Your task to perform on an android device: Search for pizza restaurants on Maps Image 0: 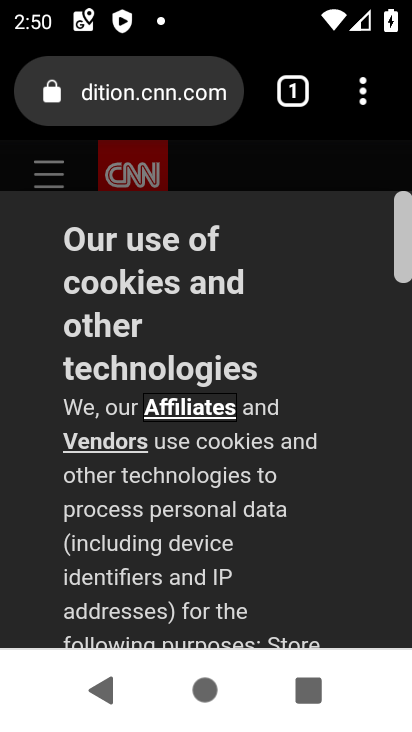
Step 0: press home button
Your task to perform on an android device: Search for pizza restaurants on Maps Image 1: 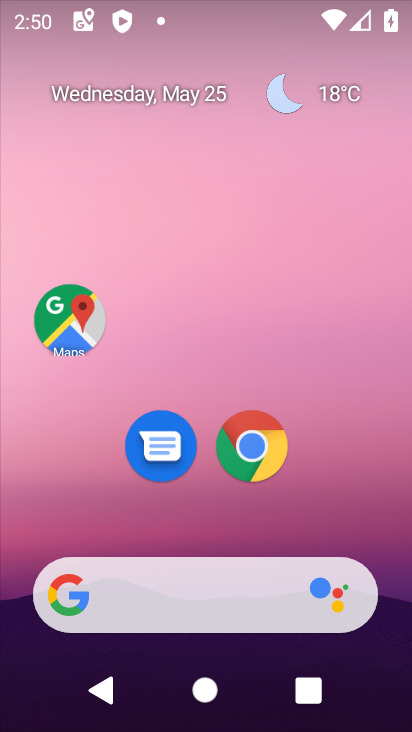
Step 1: drag from (229, 591) to (248, 224)
Your task to perform on an android device: Search for pizza restaurants on Maps Image 2: 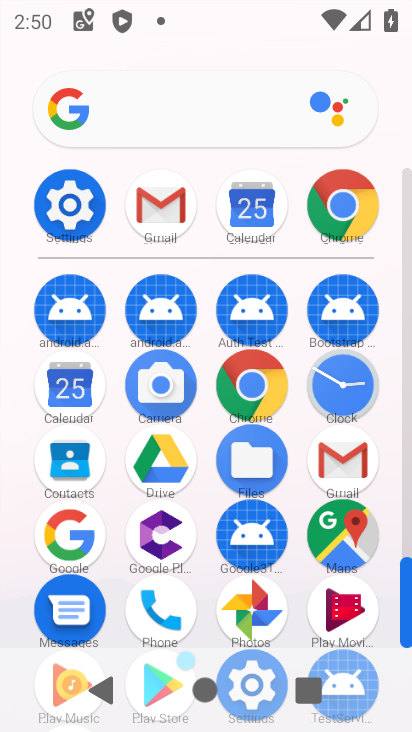
Step 2: click (337, 535)
Your task to perform on an android device: Search for pizza restaurants on Maps Image 3: 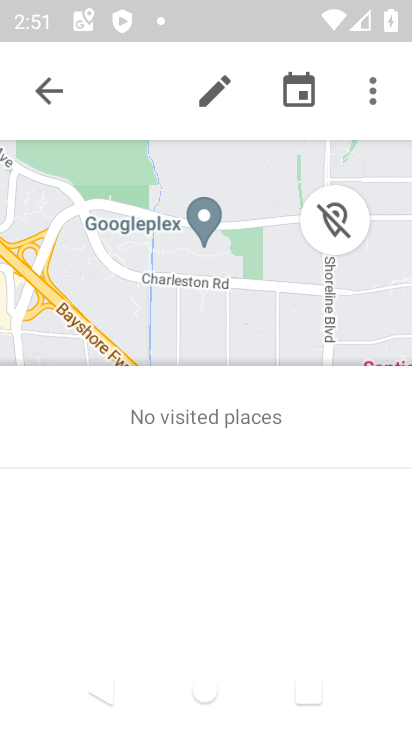
Step 3: click (46, 80)
Your task to perform on an android device: Search for pizza restaurants on Maps Image 4: 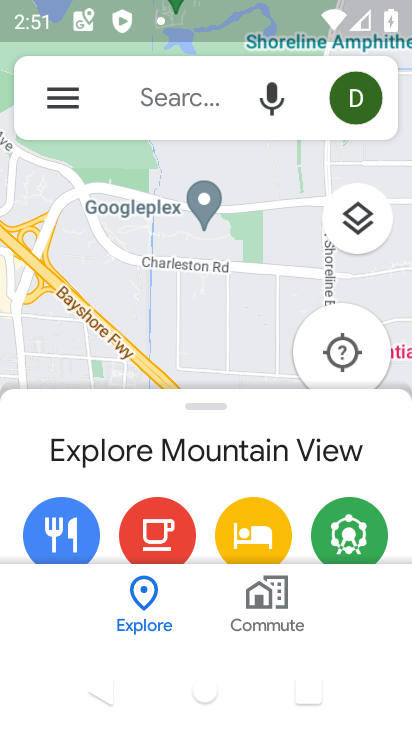
Step 4: click (165, 116)
Your task to perform on an android device: Search for pizza restaurants on Maps Image 5: 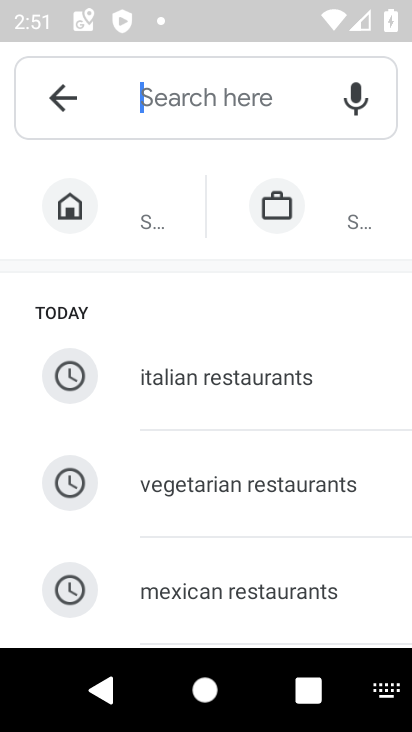
Step 5: type ""
Your task to perform on an android device: Search for pizza restaurants on Maps Image 6: 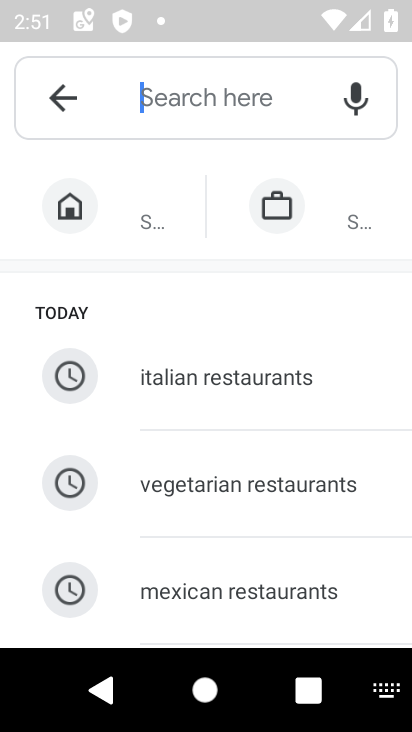
Step 6: type "pizza "
Your task to perform on an android device: Search for pizza restaurants on Maps Image 7: 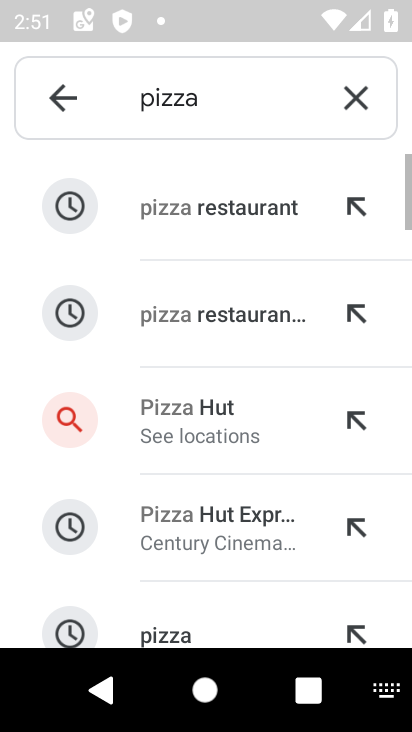
Step 7: click (189, 218)
Your task to perform on an android device: Search for pizza restaurants on Maps Image 8: 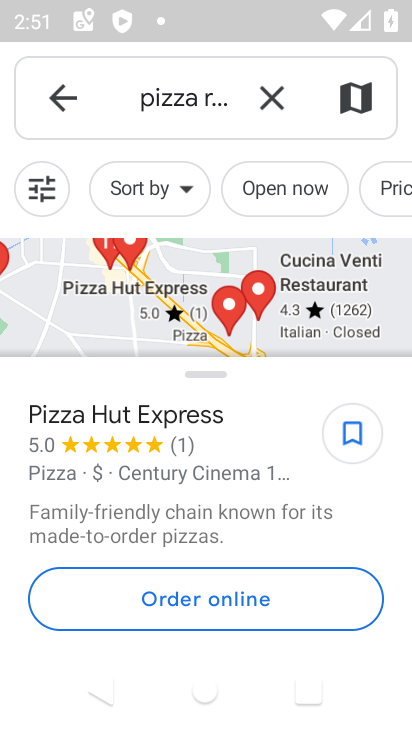
Step 8: task complete